Your task to perform on an android device: search for starred emails in the gmail app Image 0: 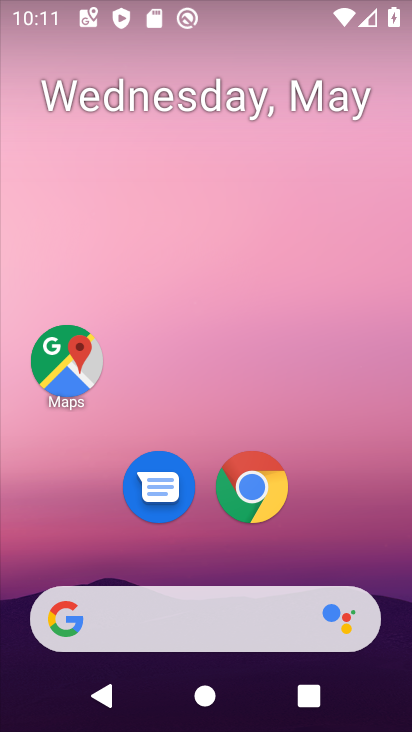
Step 0: drag from (166, 564) to (384, 30)
Your task to perform on an android device: search for starred emails in the gmail app Image 1: 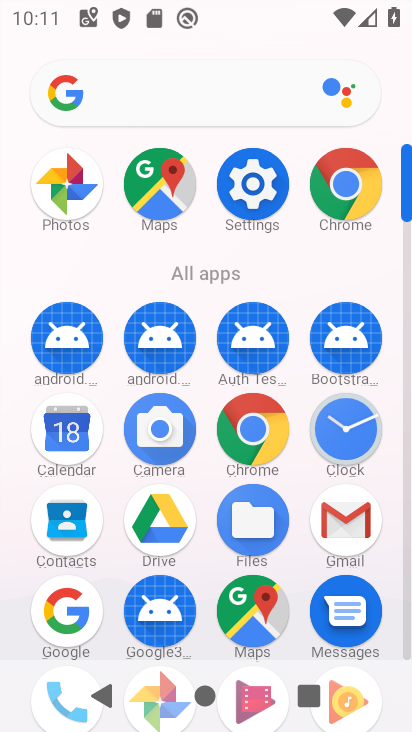
Step 1: click (352, 526)
Your task to perform on an android device: search for starred emails in the gmail app Image 2: 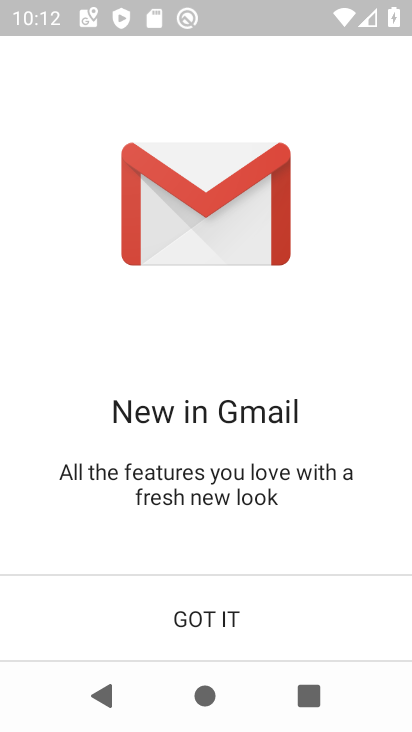
Step 2: click (207, 612)
Your task to perform on an android device: search for starred emails in the gmail app Image 3: 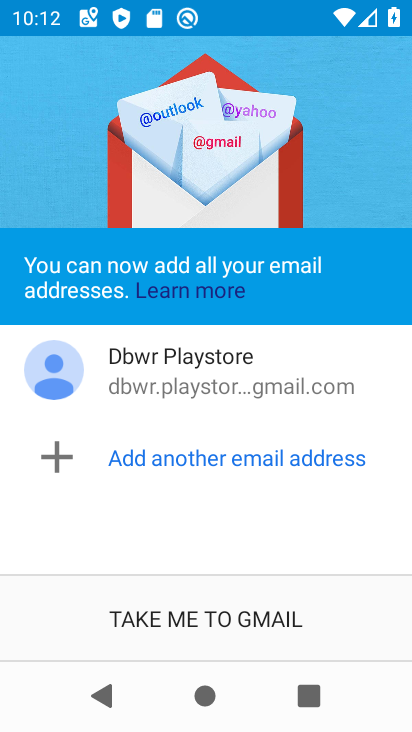
Step 3: click (207, 612)
Your task to perform on an android device: search for starred emails in the gmail app Image 4: 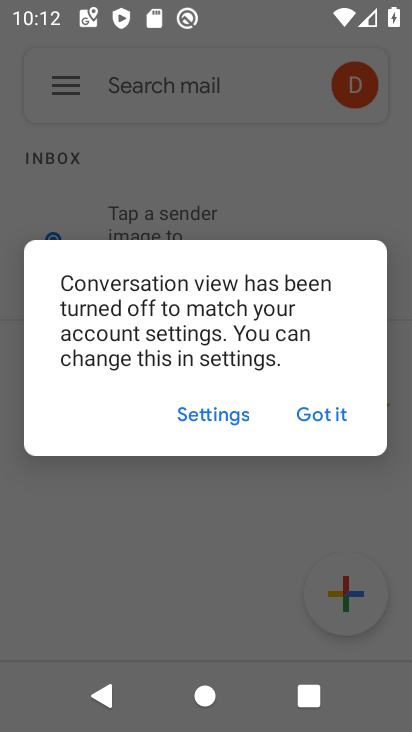
Step 4: click (345, 426)
Your task to perform on an android device: search for starred emails in the gmail app Image 5: 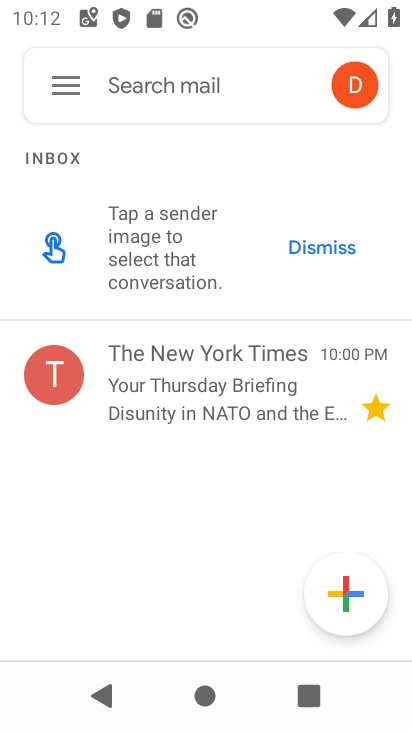
Step 5: click (47, 81)
Your task to perform on an android device: search for starred emails in the gmail app Image 6: 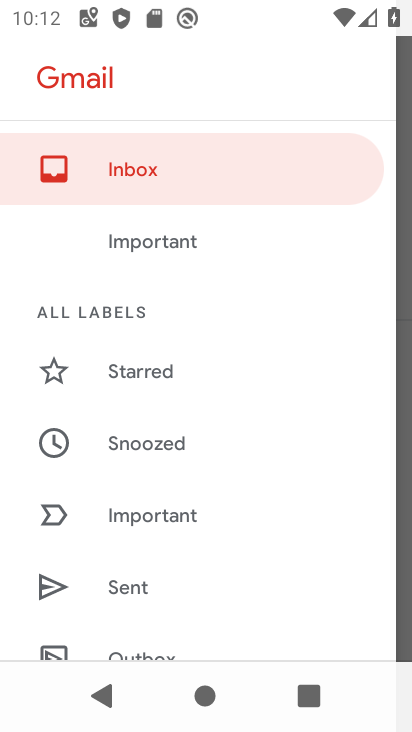
Step 6: click (131, 364)
Your task to perform on an android device: search for starred emails in the gmail app Image 7: 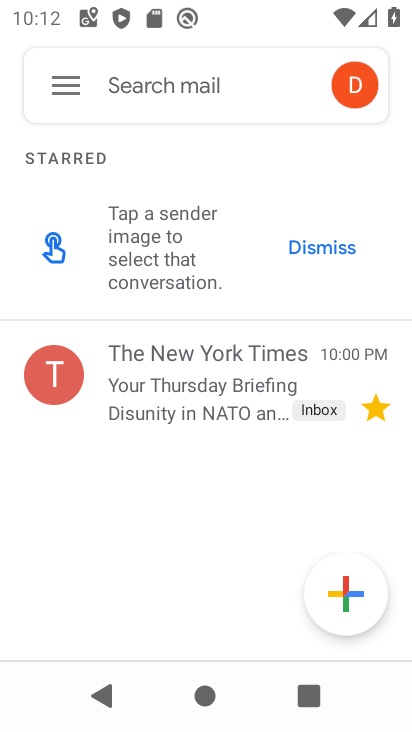
Step 7: task complete